Your task to perform on an android device: check android version Image 0: 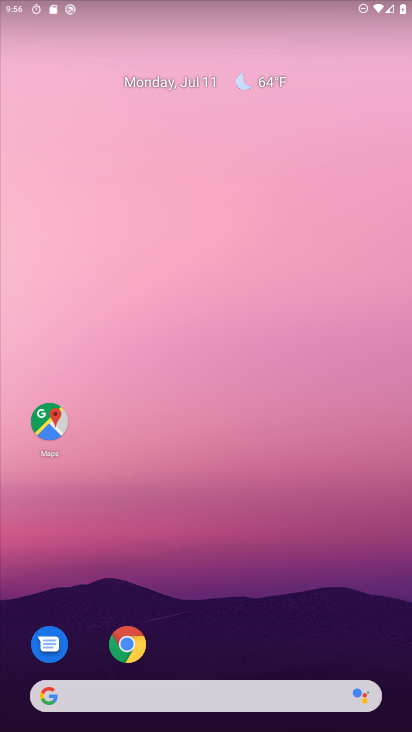
Step 0: drag from (261, 610) to (217, 180)
Your task to perform on an android device: check android version Image 1: 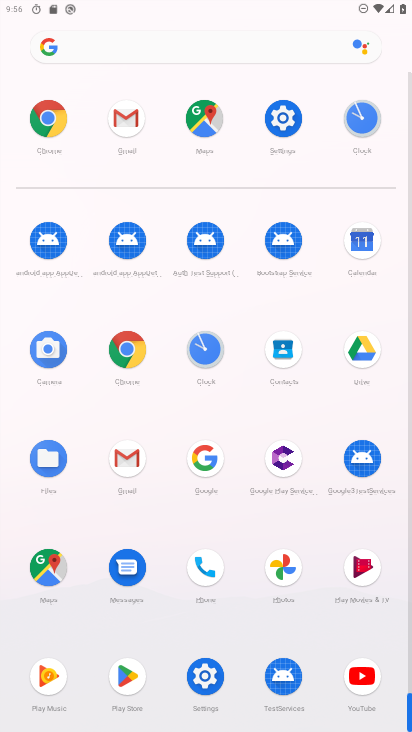
Step 1: click (280, 130)
Your task to perform on an android device: check android version Image 2: 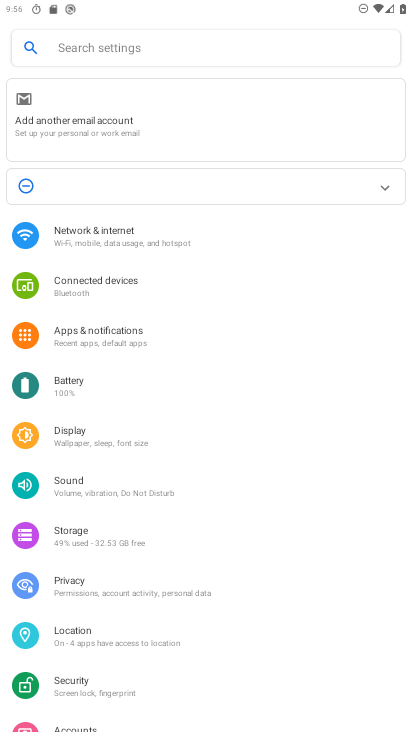
Step 2: drag from (231, 662) to (258, 120)
Your task to perform on an android device: check android version Image 3: 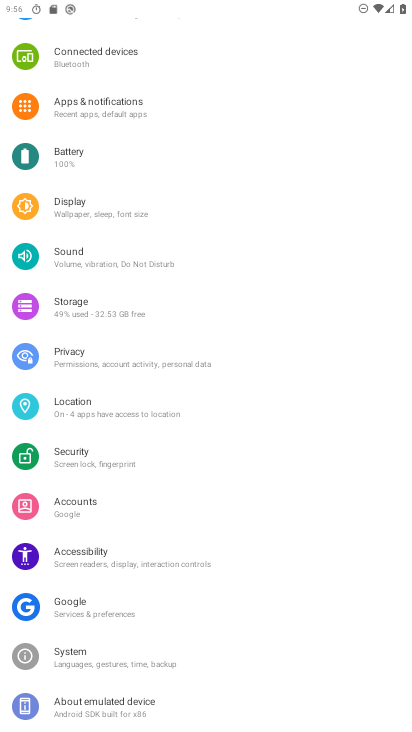
Step 3: click (131, 705)
Your task to perform on an android device: check android version Image 4: 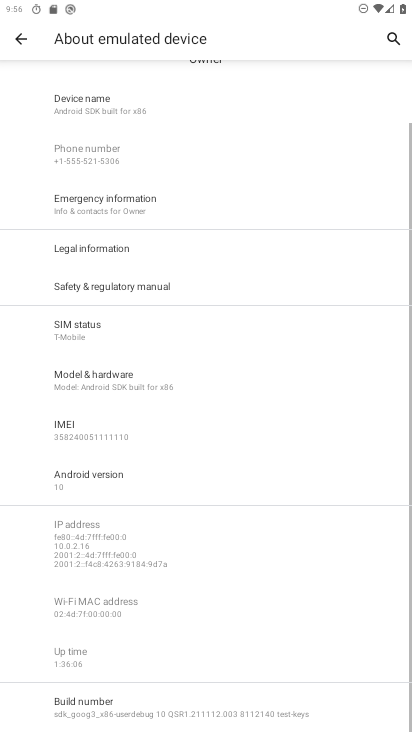
Step 4: drag from (201, 685) to (250, 169)
Your task to perform on an android device: check android version Image 5: 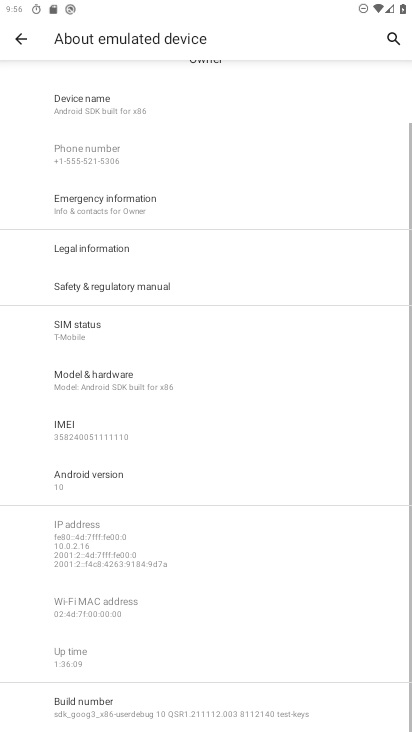
Step 5: drag from (218, 205) to (206, 569)
Your task to perform on an android device: check android version Image 6: 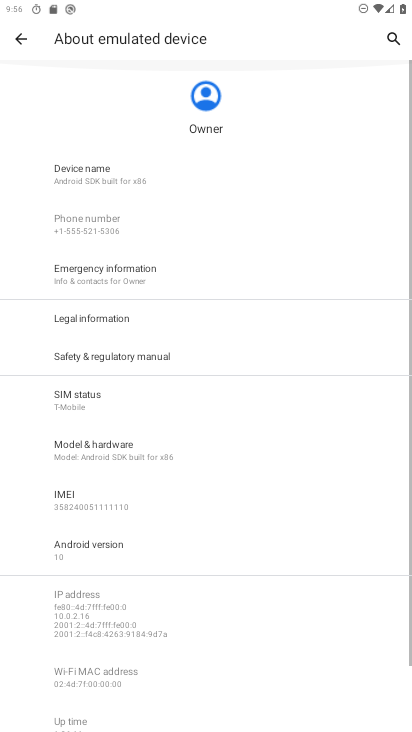
Step 6: click (97, 556)
Your task to perform on an android device: check android version Image 7: 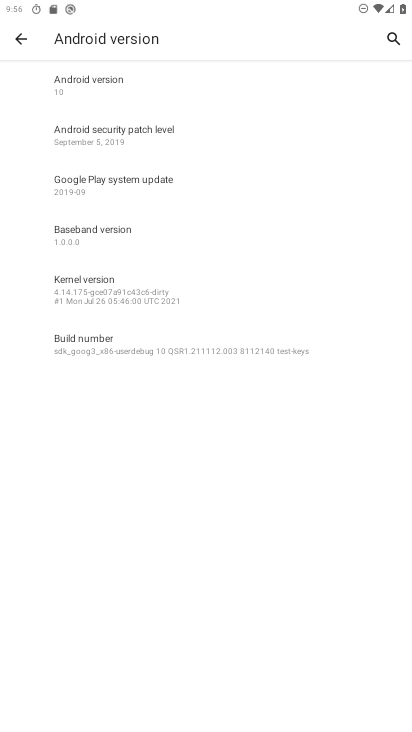
Step 7: task complete